Your task to perform on an android device: check storage Image 0: 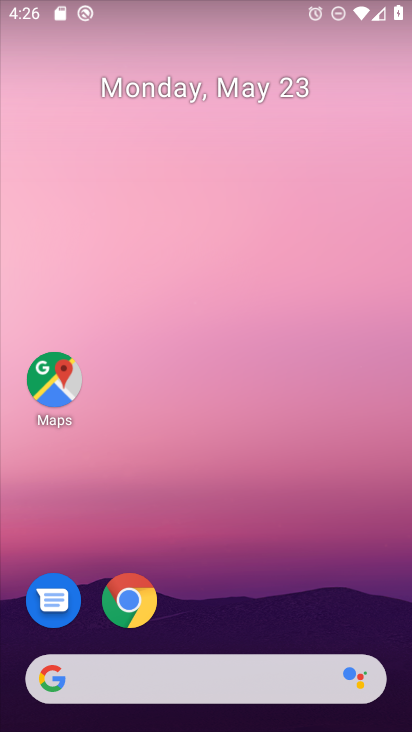
Step 0: drag from (256, 639) to (268, 2)
Your task to perform on an android device: check storage Image 1: 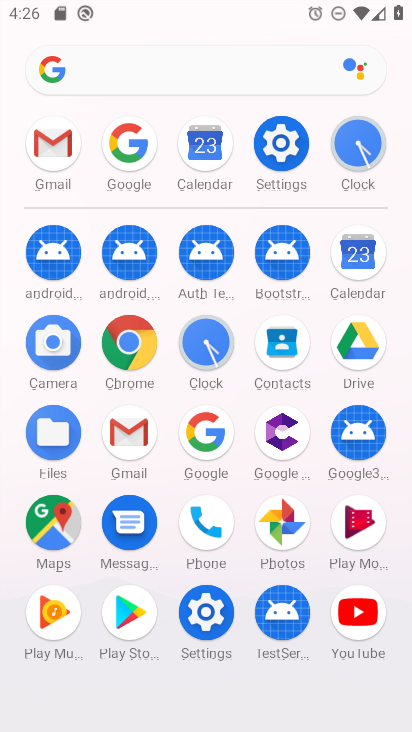
Step 1: click (275, 141)
Your task to perform on an android device: check storage Image 2: 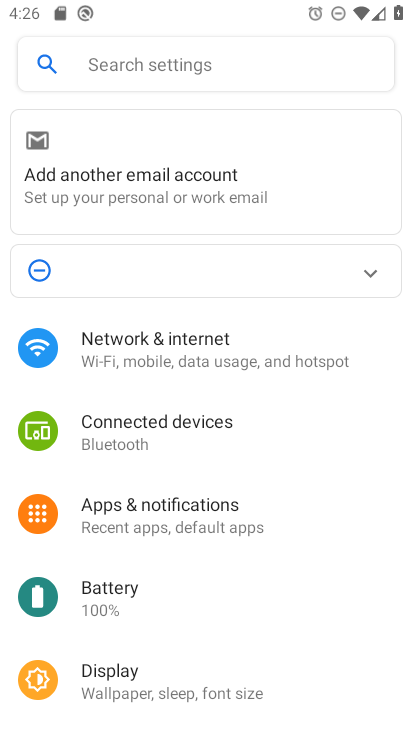
Step 2: drag from (306, 500) to (296, 110)
Your task to perform on an android device: check storage Image 3: 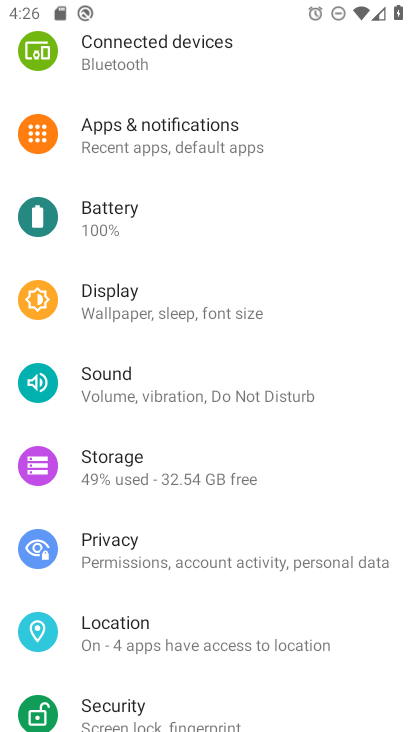
Step 3: click (130, 462)
Your task to perform on an android device: check storage Image 4: 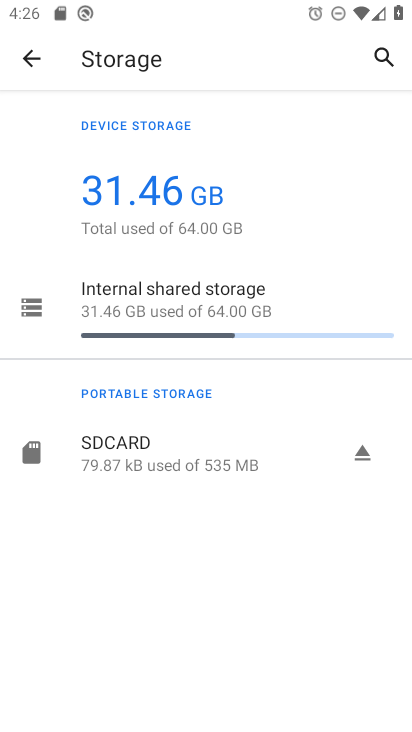
Step 4: click (145, 309)
Your task to perform on an android device: check storage Image 5: 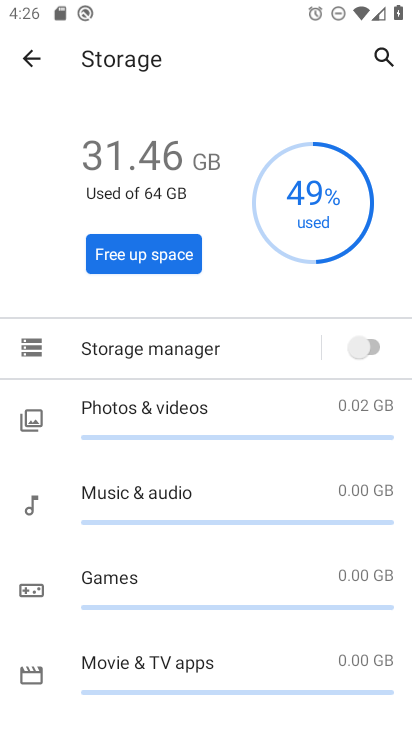
Step 5: task complete